Your task to perform on an android device: turn off javascript in the chrome app Image 0: 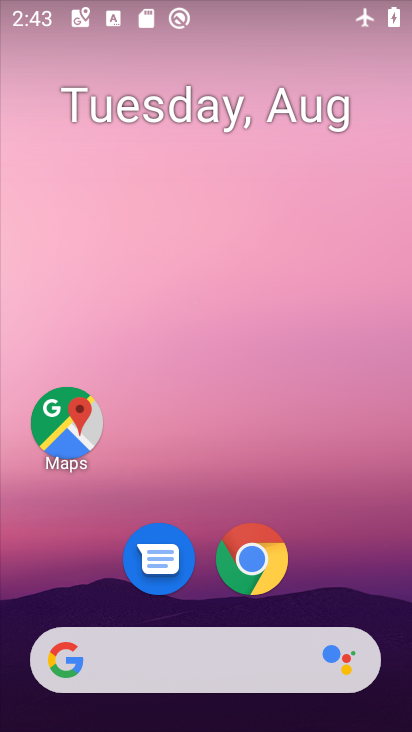
Step 0: click (242, 543)
Your task to perform on an android device: turn off javascript in the chrome app Image 1: 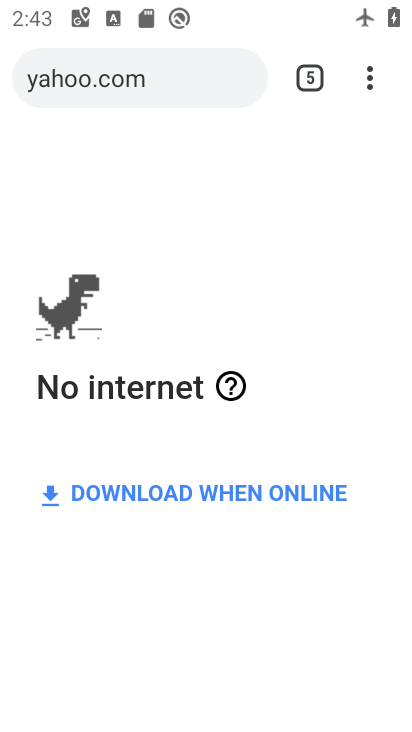
Step 1: click (364, 76)
Your task to perform on an android device: turn off javascript in the chrome app Image 2: 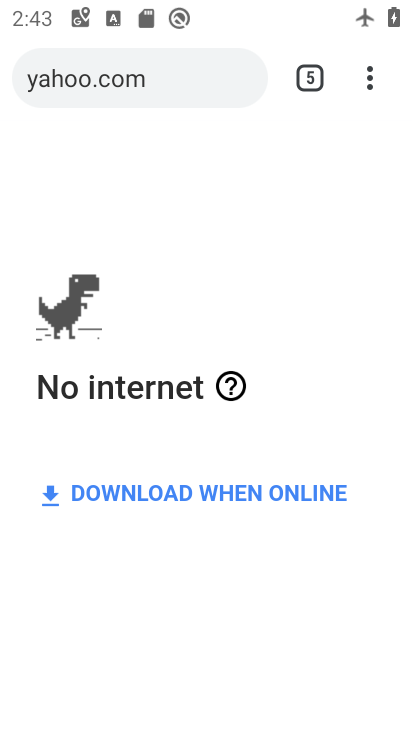
Step 2: click (364, 83)
Your task to perform on an android device: turn off javascript in the chrome app Image 3: 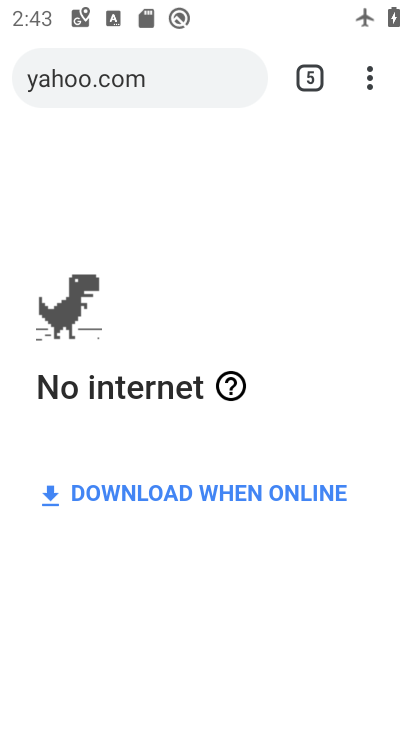
Step 3: click (364, 83)
Your task to perform on an android device: turn off javascript in the chrome app Image 4: 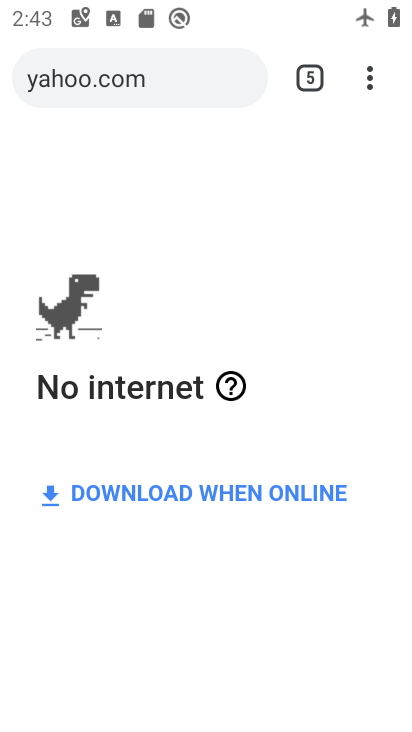
Step 4: click (367, 85)
Your task to perform on an android device: turn off javascript in the chrome app Image 5: 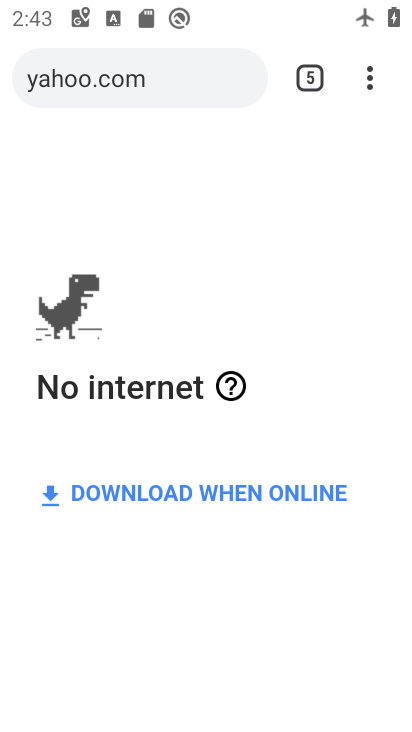
Step 5: drag from (367, 85) to (113, 605)
Your task to perform on an android device: turn off javascript in the chrome app Image 6: 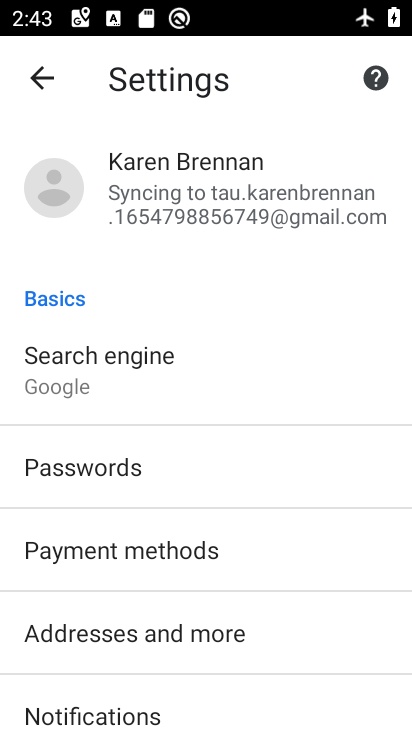
Step 6: drag from (168, 613) to (160, 363)
Your task to perform on an android device: turn off javascript in the chrome app Image 7: 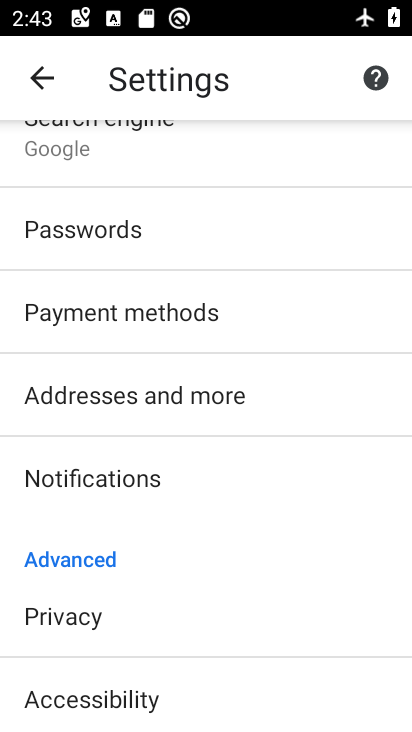
Step 7: drag from (158, 615) to (158, 360)
Your task to perform on an android device: turn off javascript in the chrome app Image 8: 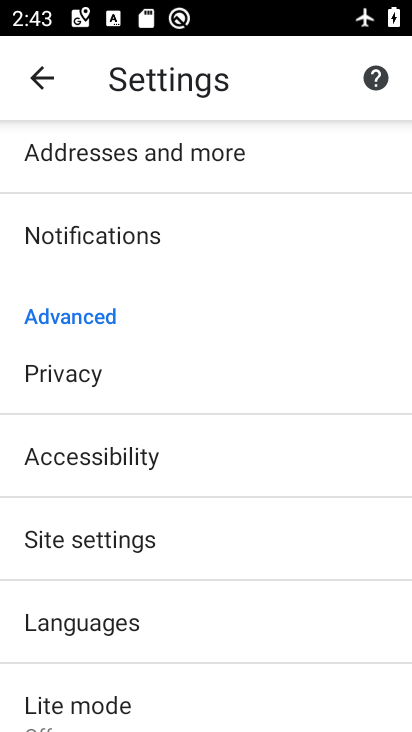
Step 8: click (121, 562)
Your task to perform on an android device: turn off javascript in the chrome app Image 9: 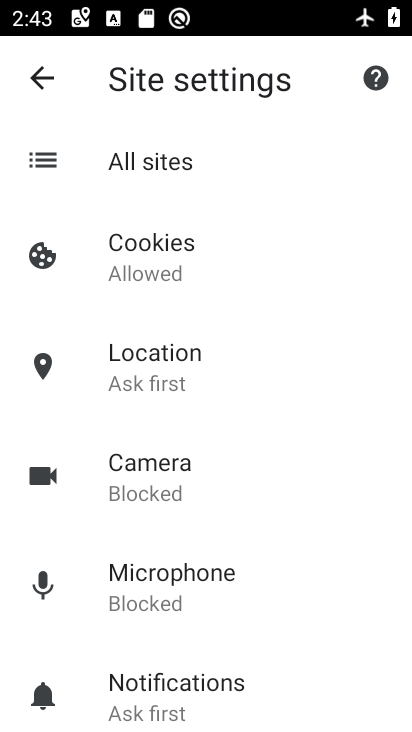
Step 9: drag from (261, 569) to (267, 230)
Your task to perform on an android device: turn off javascript in the chrome app Image 10: 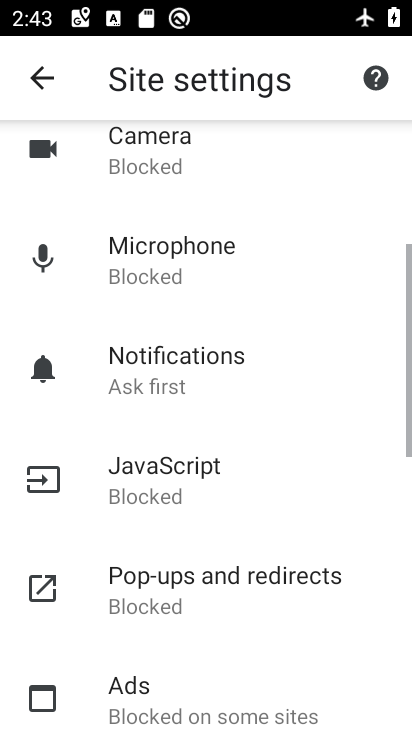
Step 10: drag from (261, 570) to (226, 266)
Your task to perform on an android device: turn off javascript in the chrome app Image 11: 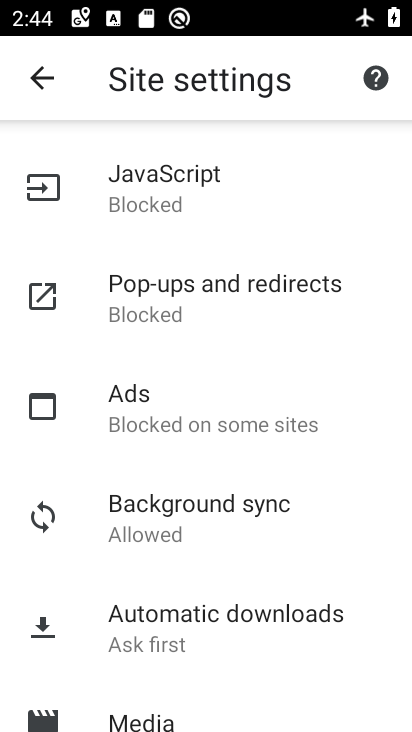
Step 11: click (210, 207)
Your task to perform on an android device: turn off javascript in the chrome app Image 12: 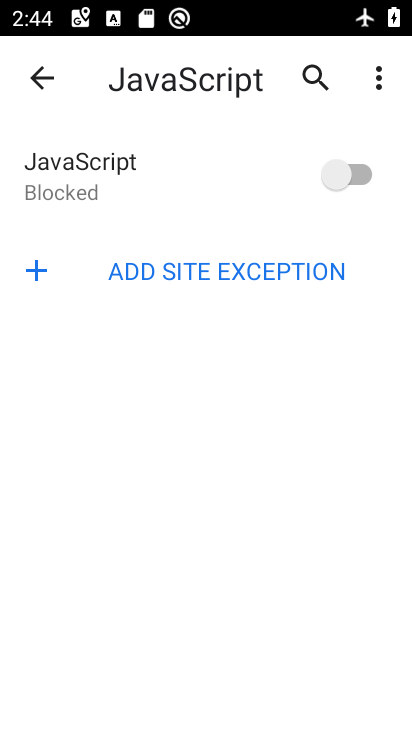
Step 12: task complete